Your task to perform on an android device: open device folders in google photos Image 0: 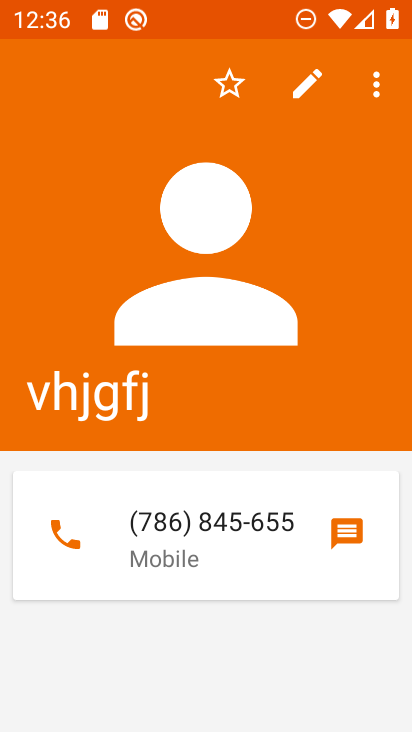
Step 0: press home button
Your task to perform on an android device: open device folders in google photos Image 1: 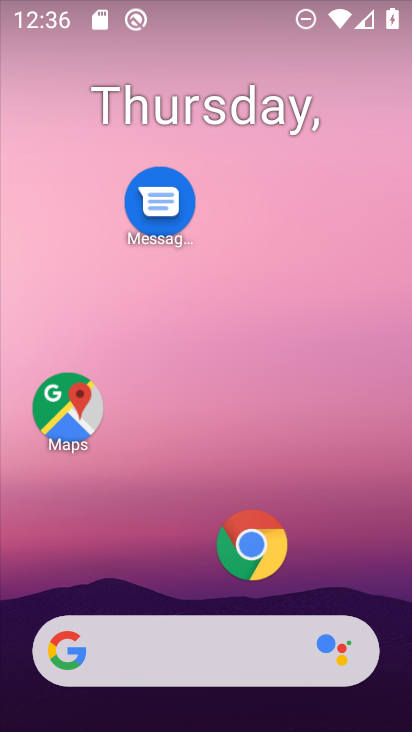
Step 1: drag from (180, 571) to (224, 284)
Your task to perform on an android device: open device folders in google photos Image 2: 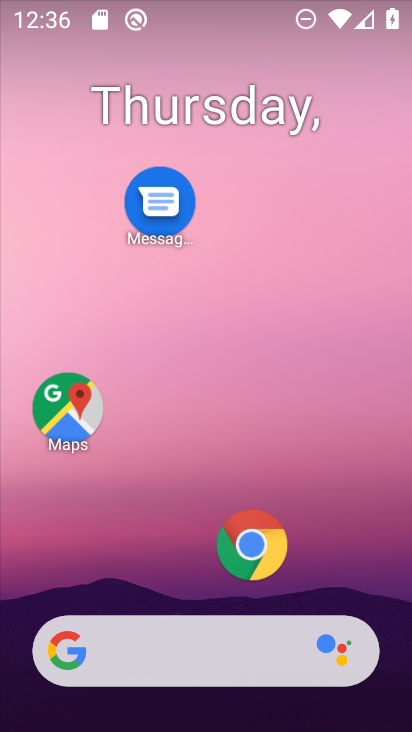
Step 2: drag from (183, 582) to (204, 175)
Your task to perform on an android device: open device folders in google photos Image 3: 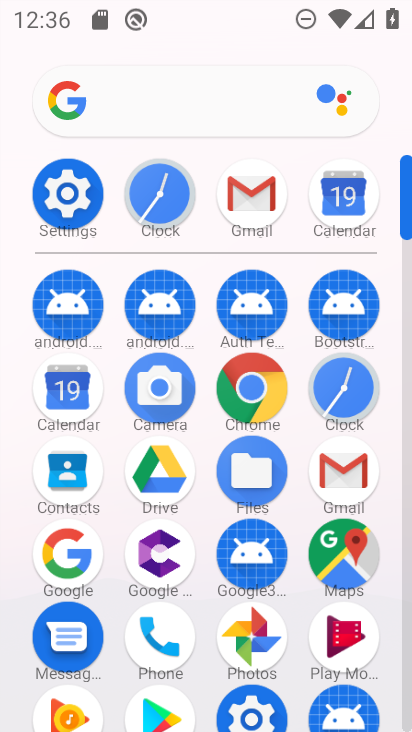
Step 3: click (258, 641)
Your task to perform on an android device: open device folders in google photos Image 4: 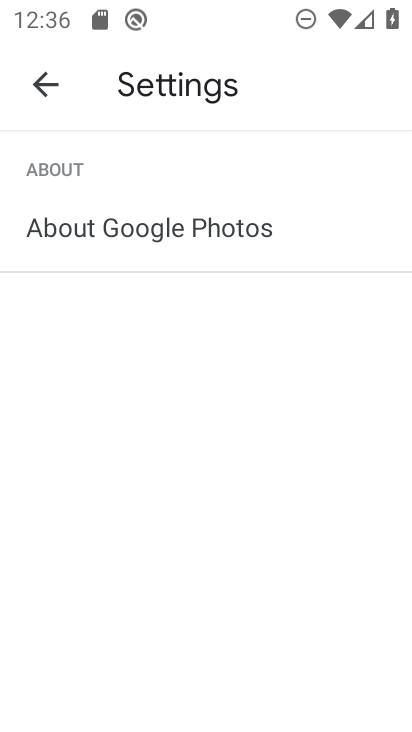
Step 4: click (43, 97)
Your task to perform on an android device: open device folders in google photos Image 5: 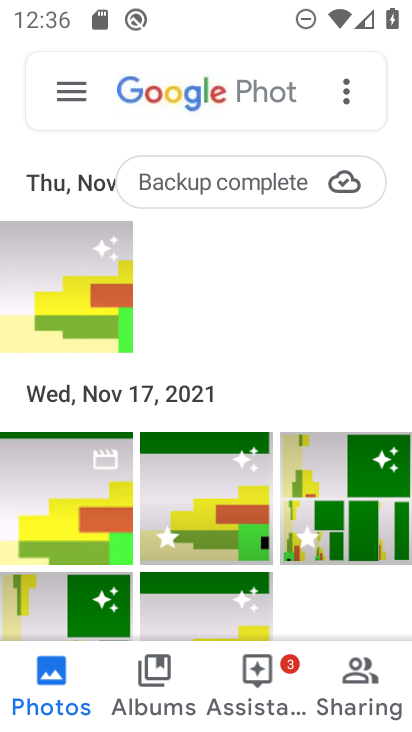
Step 5: click (53, 97)
Your task to perform on an android device: open device folders in google photos Image 6: 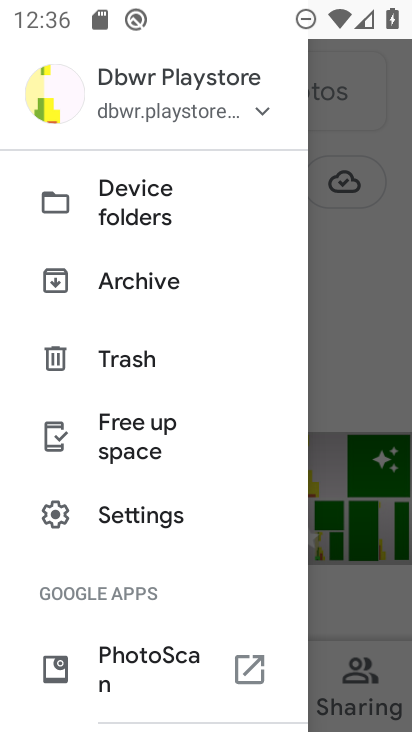
Step 6: click (104, 202)
Your task to perform on an android device: open device folders in google photos Image 7: 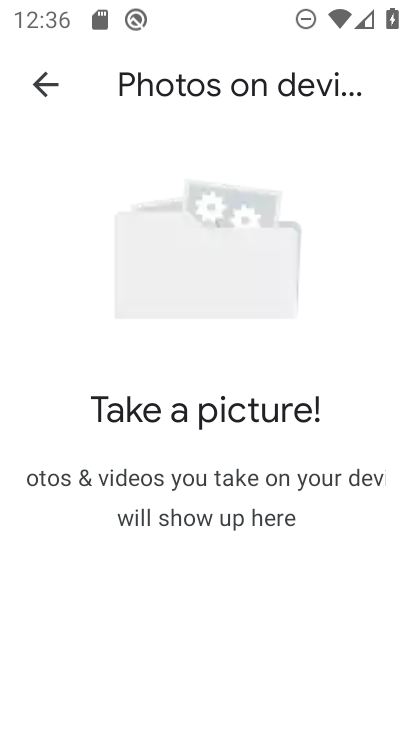
Step 7: task complete